Your task to perform on an android device: Open my contact list Image 0: 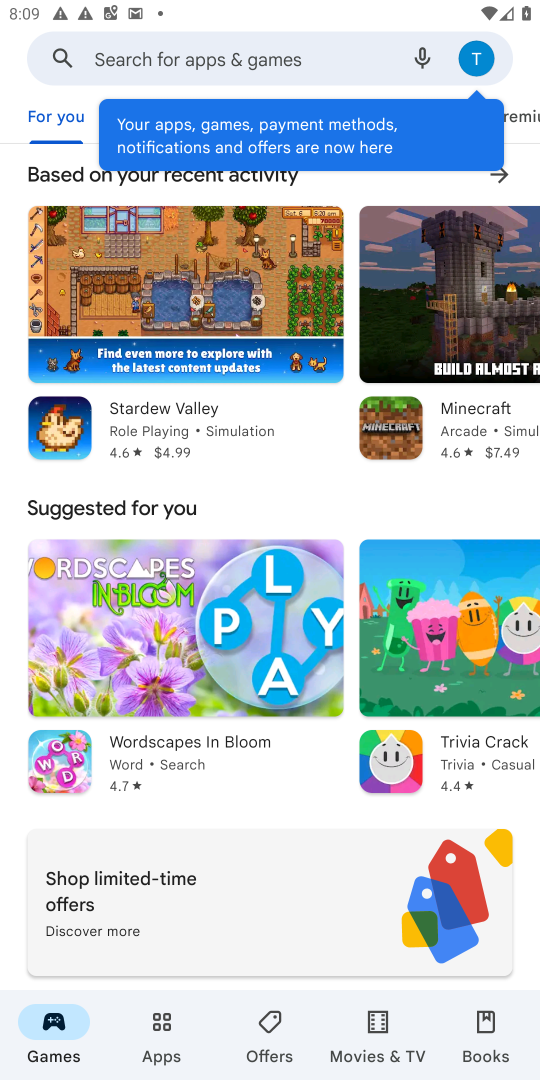
Step 0: press home button
Your task to perform on an android device: Open my contact list Image 1: 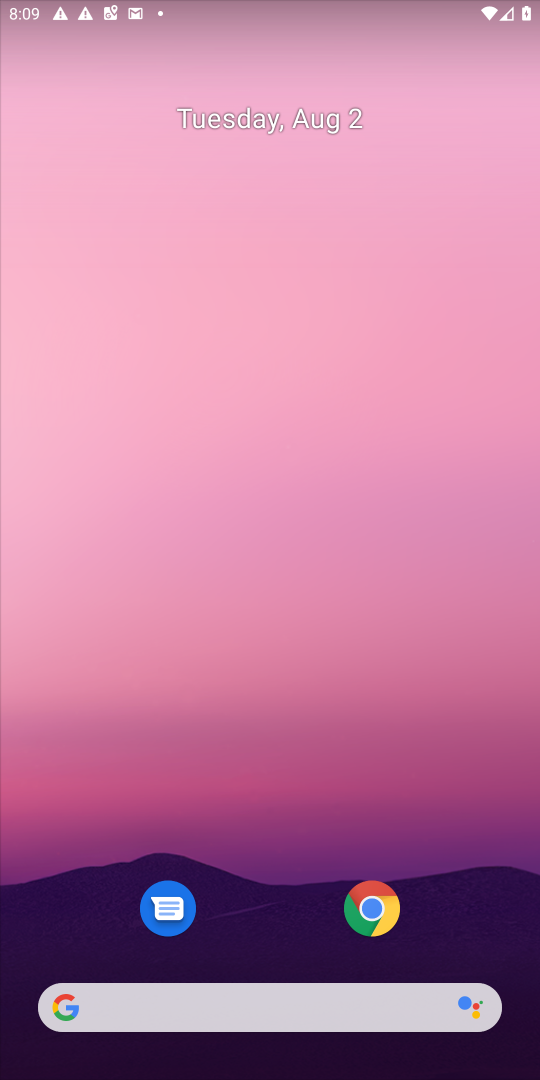
Step 1: drag from (203, 1052) to (247, 201)
Your task to perform on an android device: Open my contact list Image 2: 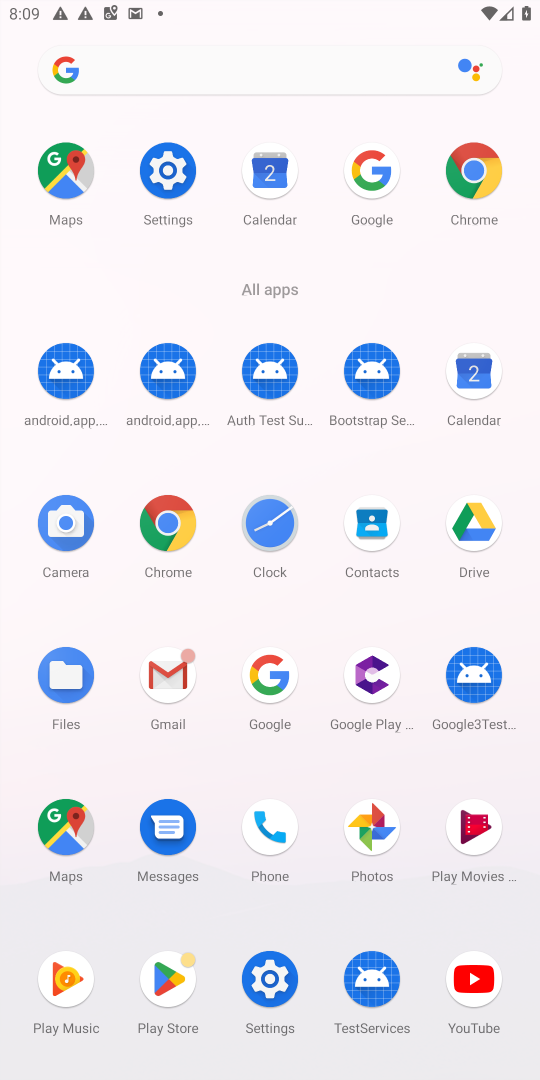
Step 2: click (381, 541)
Your task to perform on an android device: Open my contact list Image 3: 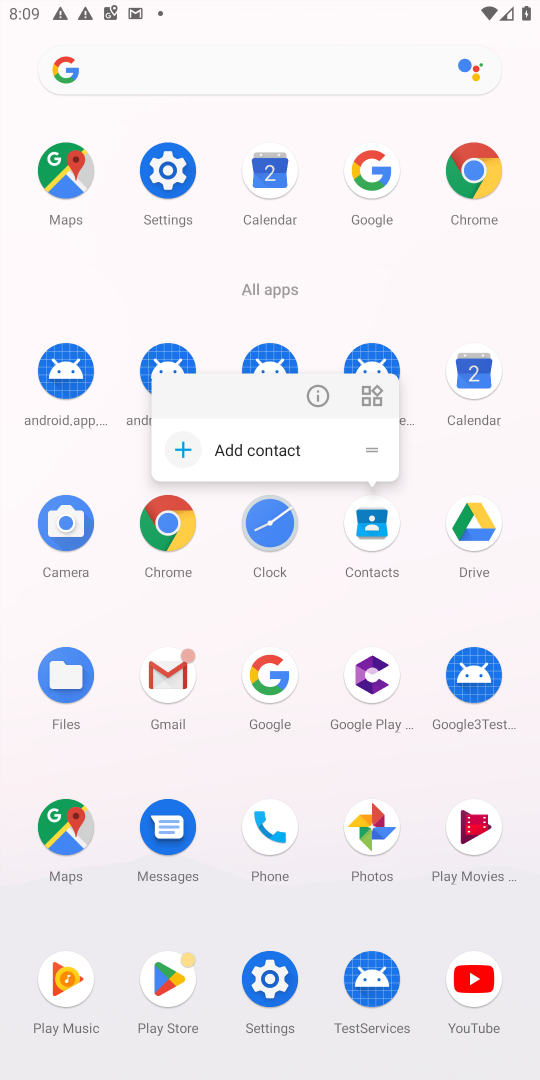
Step 3: click (381, 541)
Your task to perform on an android device: Open my contact list Image 4: 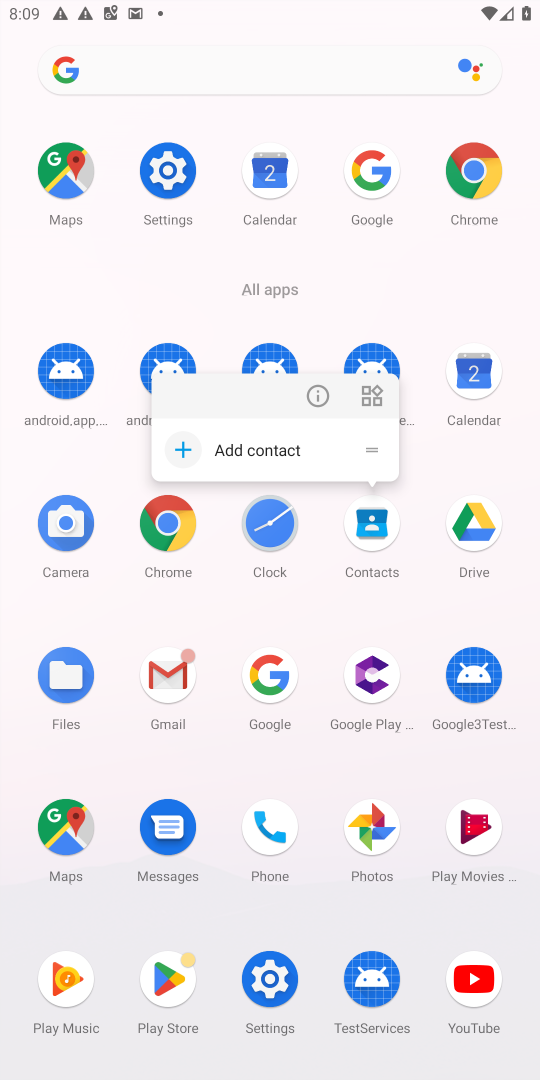
Step 4: click (369, 544)
Your task to perform on an android device: Open my contact list Image 5: 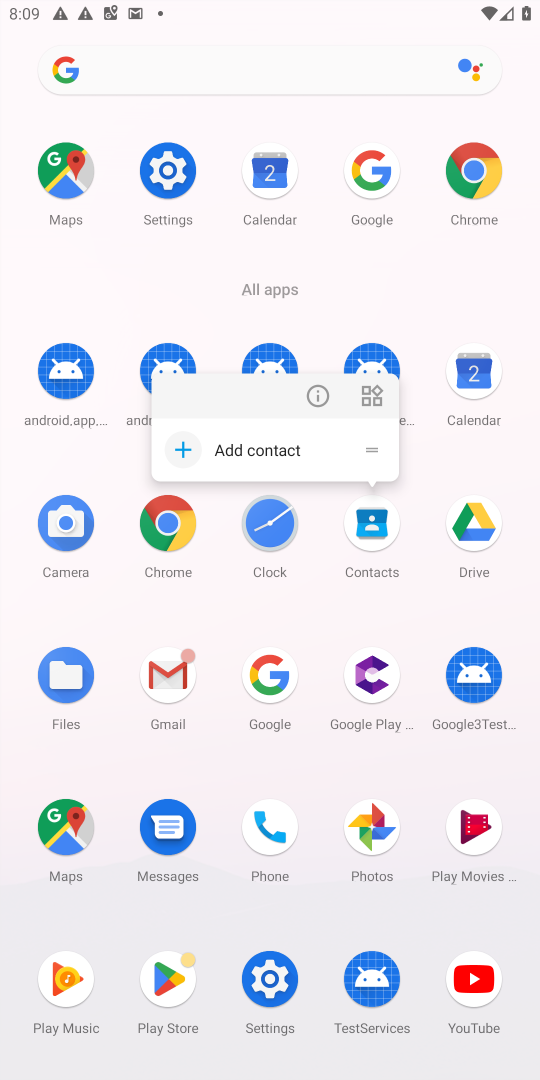
Step 5: click (385, 526)
Your task to perform on an android device: Open my contact list Image 6: 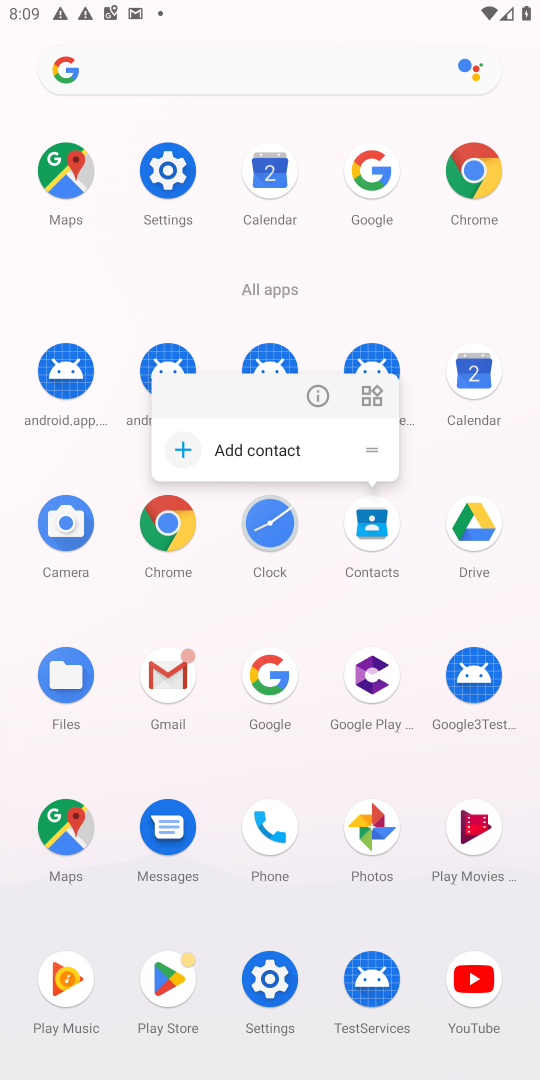
Step 6: click (355, 564)
Your task to perform on an android device: Open my contact list Image 7: 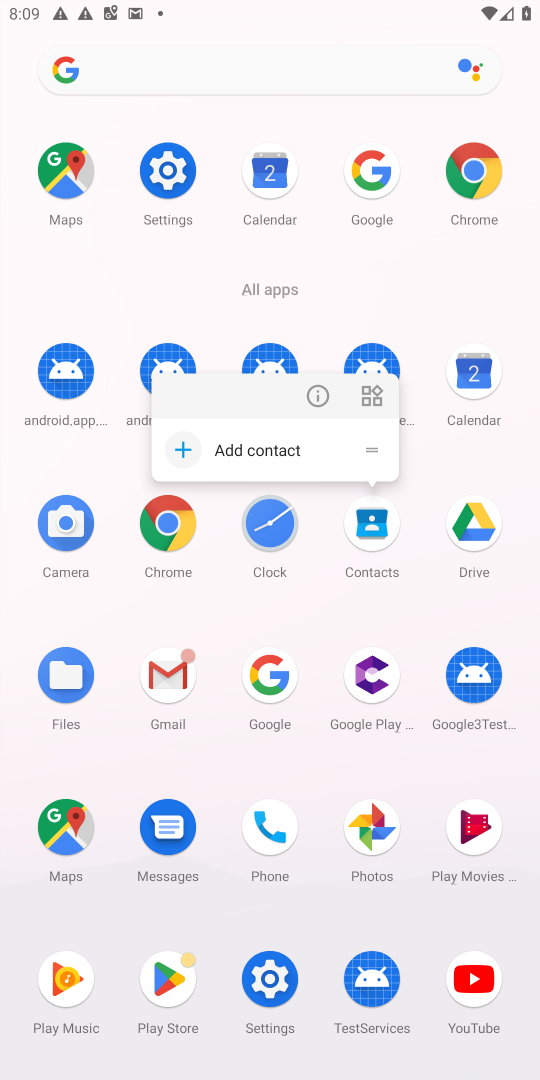
Step 7: click (388, 525)
Your task to perform on an android device: Open my contact list Image 8: 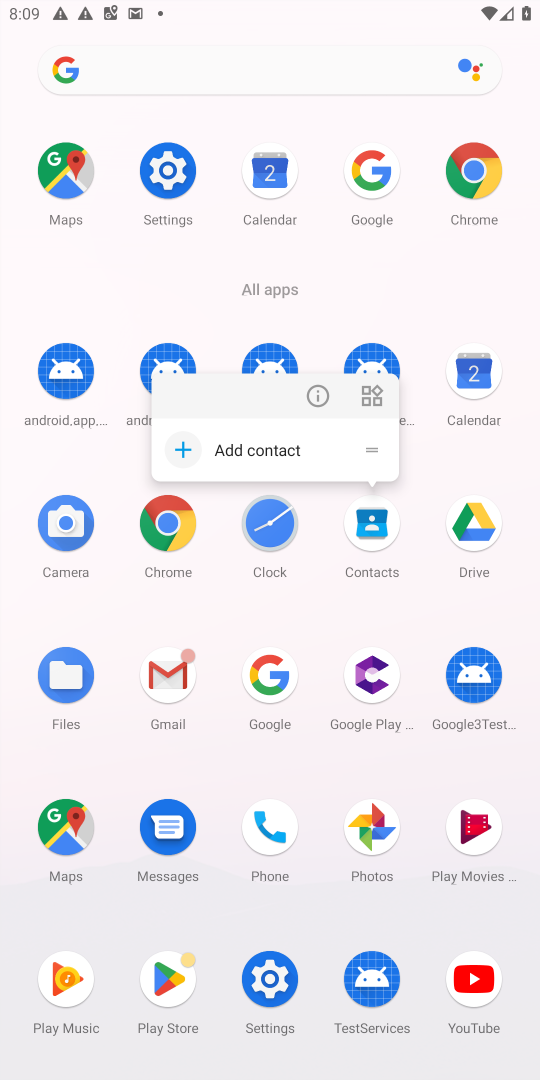
Step 8: click (388, 525)
Your task to perform on an android device: Open my contact list Image 9: 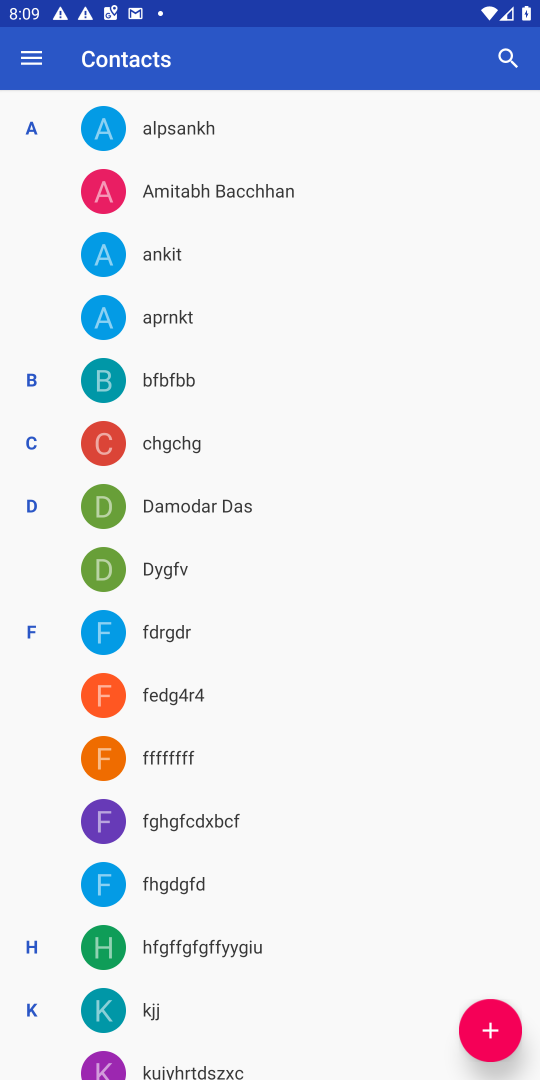
Step 9: task complete